Your task to perform on an android device: move an email to a new category in the gmail app Image 0: 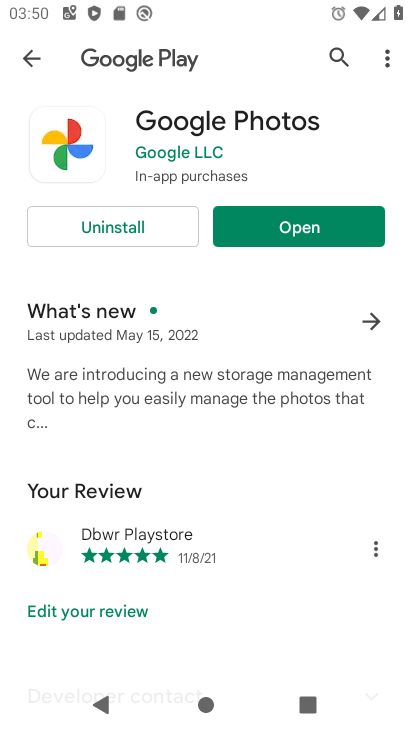
Step 0: press home button
Your task to perform on an android device: move an email to a new category in the gmail app Image 1: 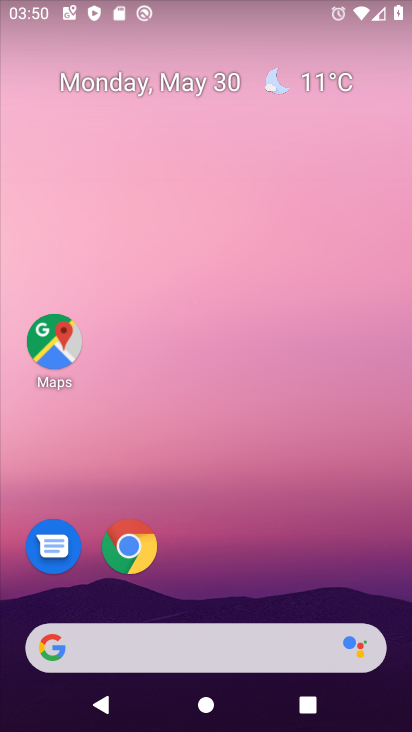
Step 1: drag from (200, 592) to (236, 33)
Your task to perform on an android device: move an email to a new category in the gmail app Image 2: 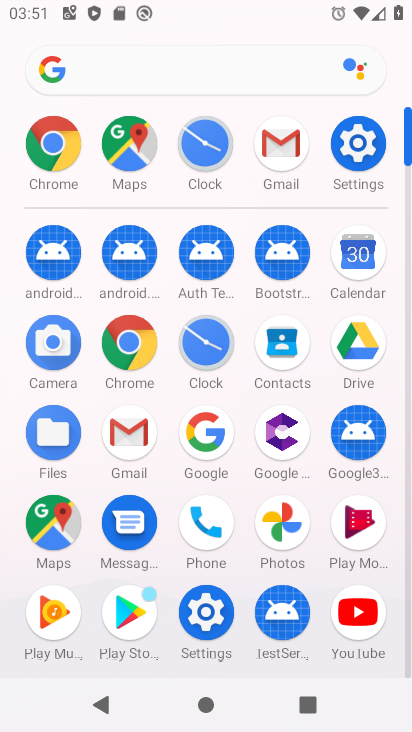
Step 2: click (124, 432)
Your task to perform on an android device: move an email to a new category in the gmail app Image 3: 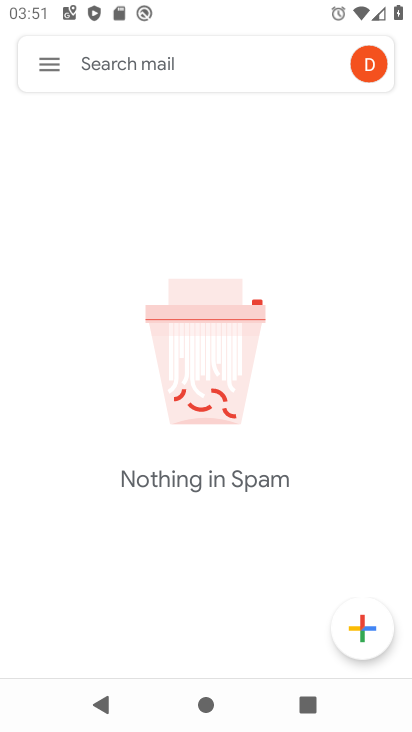
Step 3: task complete